Your task to perform on an android device: turn on showing notifications on the lock screen Image 0: 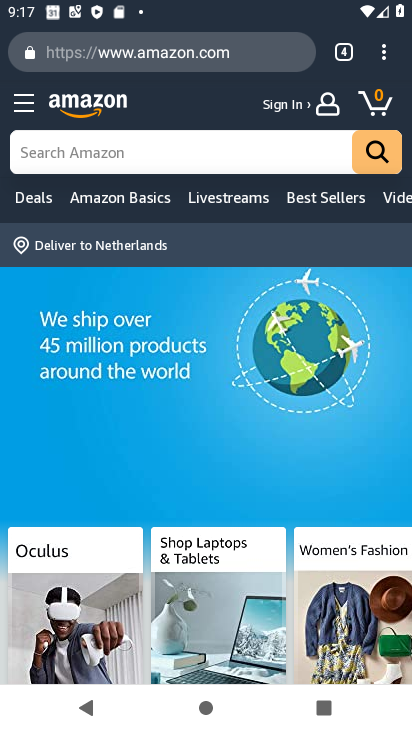
Step 0: press home button
Your task to perform on an android device: turn on showing notifications on the lock screen Image 1: 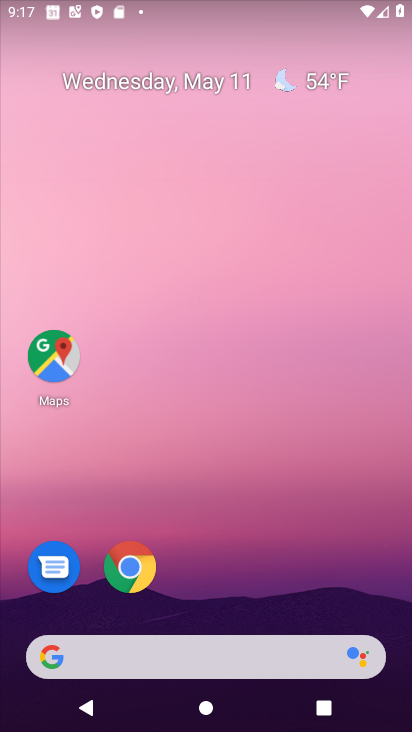
Step 1: drag from (231, 589) to (320, 15)
Your task to perform on an android device: turn on showing notifications on the lock screen Image 2: 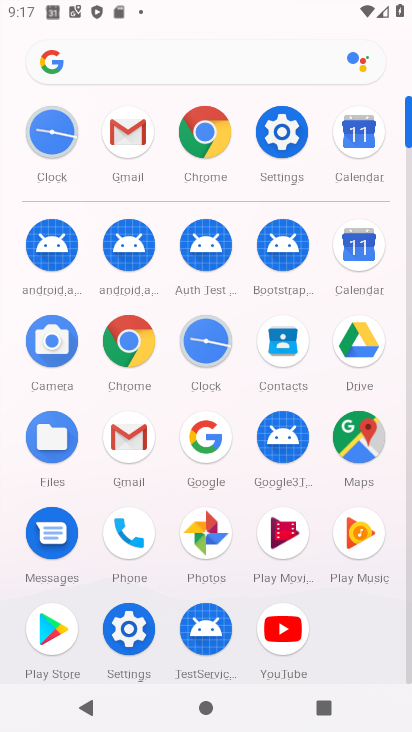
Step 2: click (120, 625)
Your task to perform on an android device: turn on showing notifications on the lock screen Image 3: 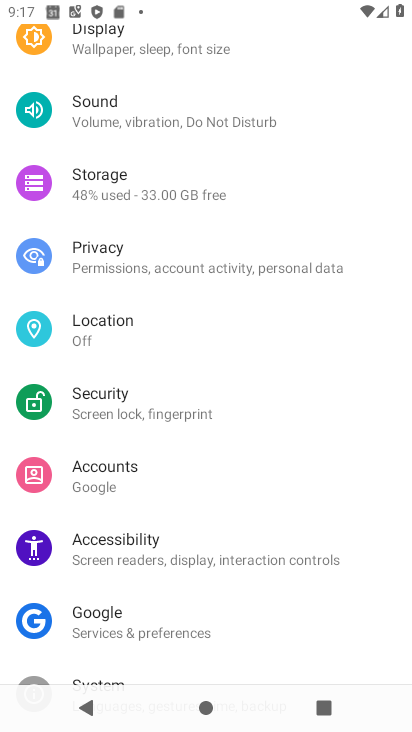
Step 3: drag from (155, 179) to (150, 546)
Your task to perform on an android device: turn on showing notifications on the lock screen Image 4: 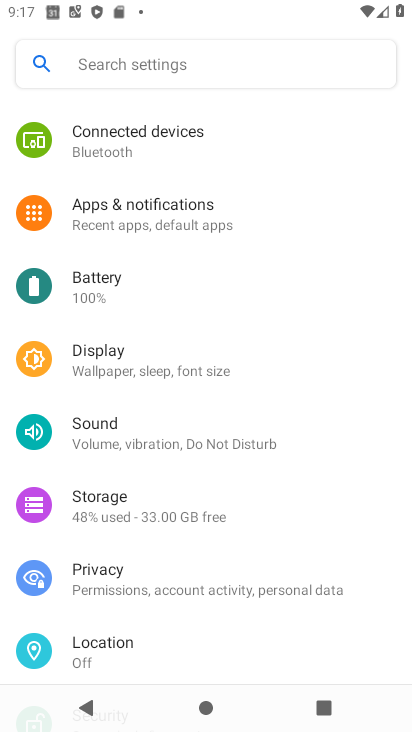
Step 4: drag from (196, 303) to (192, 621)
Your task to perform on an android device: turn on showing notifications on the lock screen Image 5: 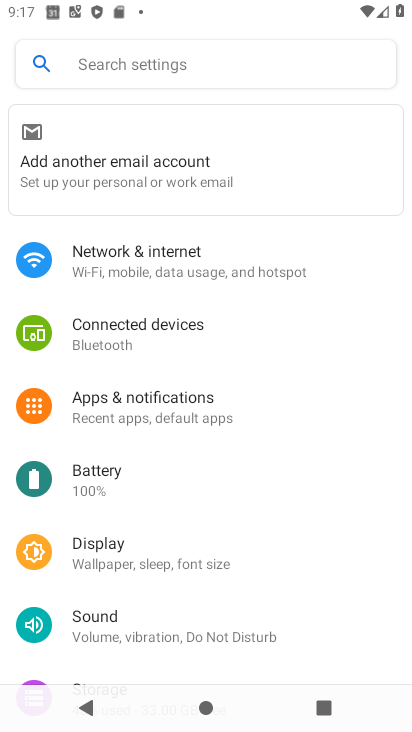
Step 5: click (174, 420)
Your task to perform on an android device: turn on showing notifications on the lock screen Image 6: 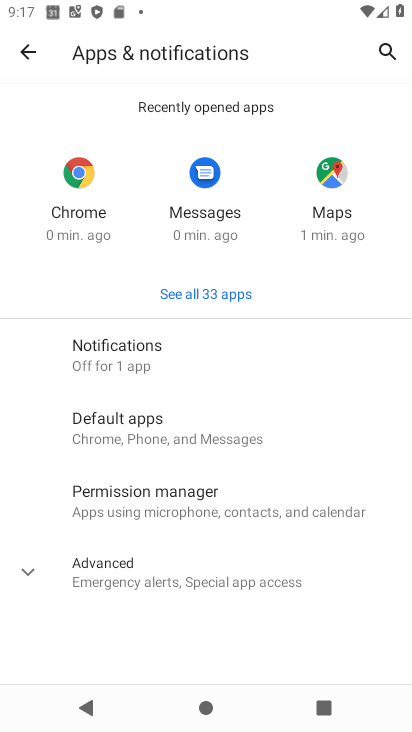
Step 6: drag from (152, 571) to (176, 480)
Your task to perform on an android device: turn on showing notifications on the lock screen Image 7: 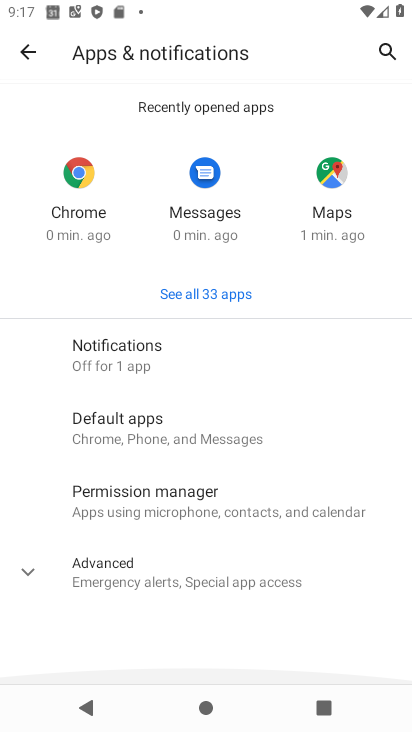
Step 7: click (149, 371)
Your task to perform on an android device: turn on showing notifications on the lock screen Image 8: 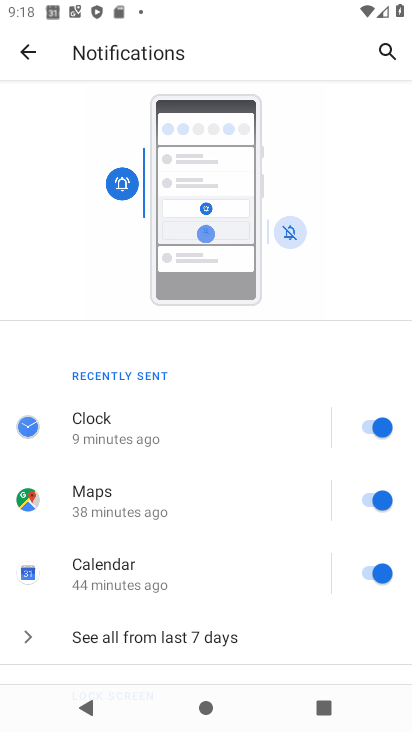
Step 8: task complete